Your task to perform on an android device: turn on translation in the chrome app Image 0: 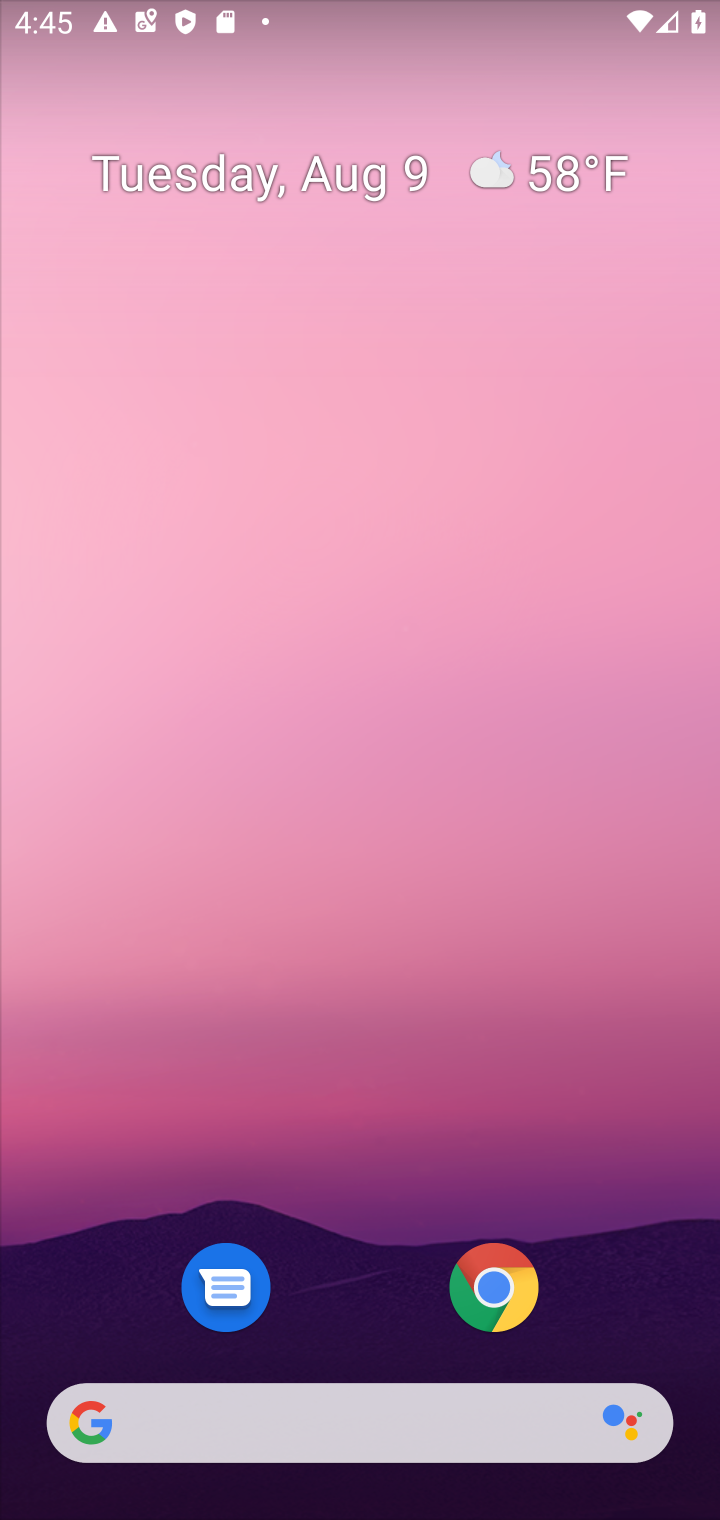
Step 0: click (486, 1296)
Your task to perform on an android device: turn on translation in the chrome app Image 1: 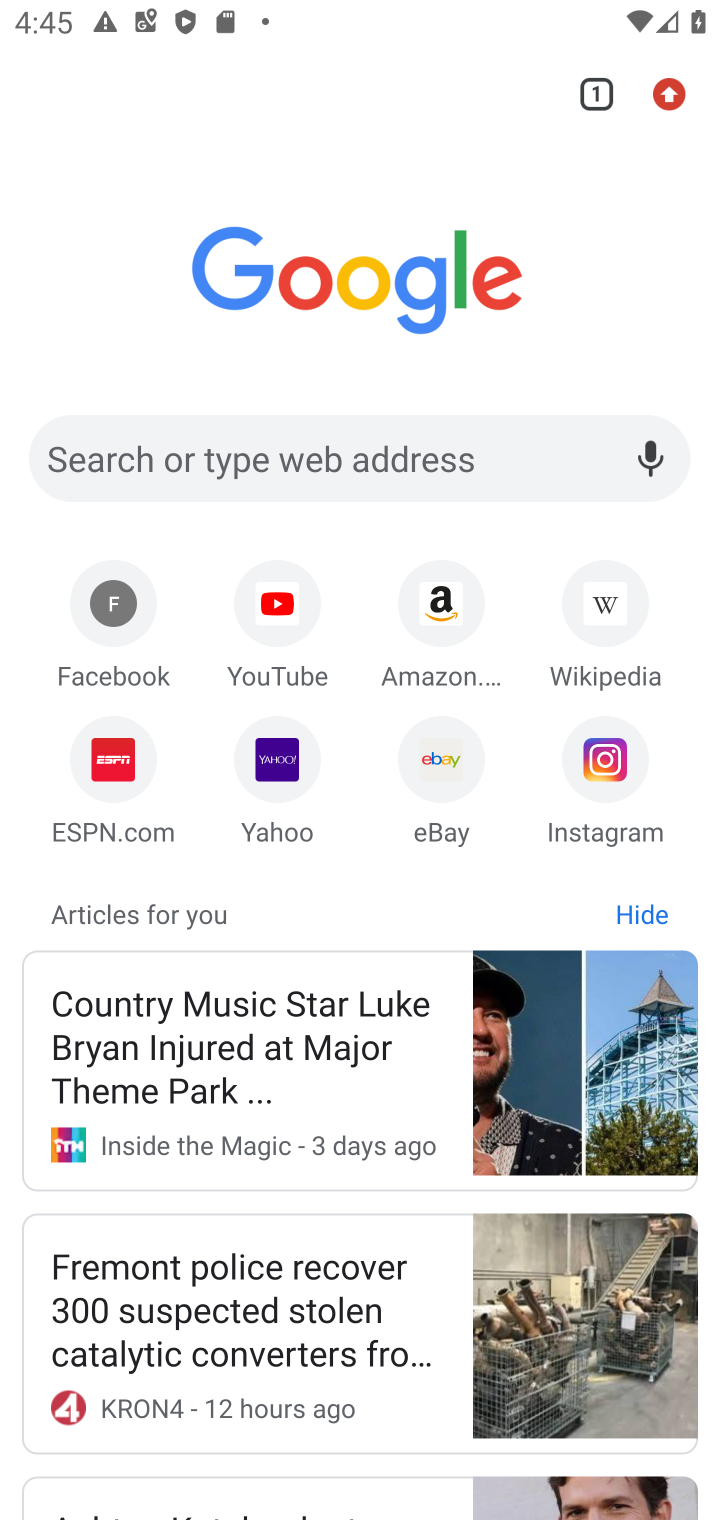
Step 1: task complete